Your task to perform on an android device: Is it going to rain tomorrow? Image 0: 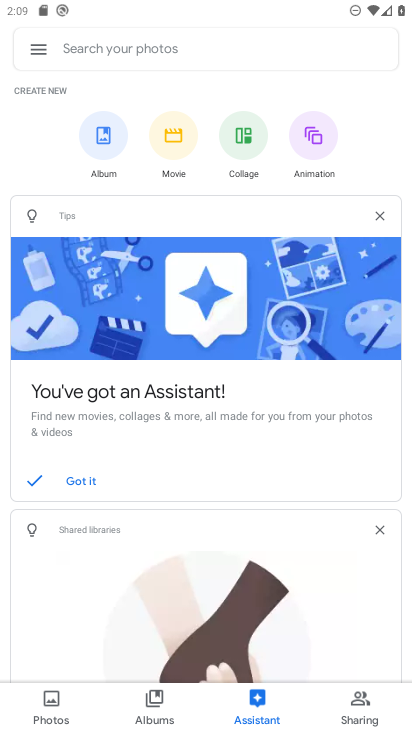
Step 0: press home button
Your task to perform on an android device: Is it going to rain tomorrow? Image 1: 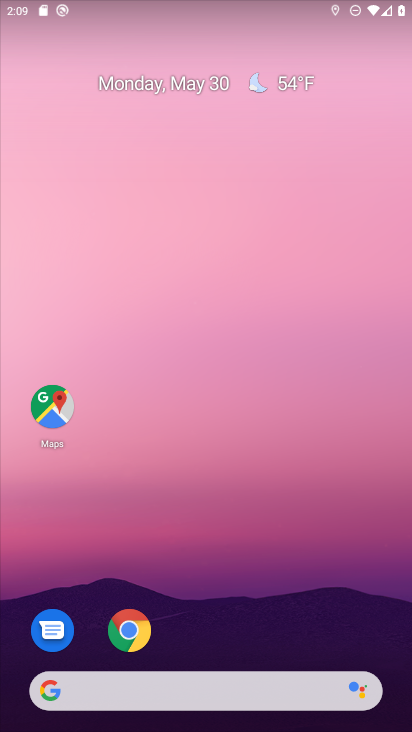
Step 1: click (299, 80)
Your task to perform on an android device: Is it going to rain tomorrow? Image 2: 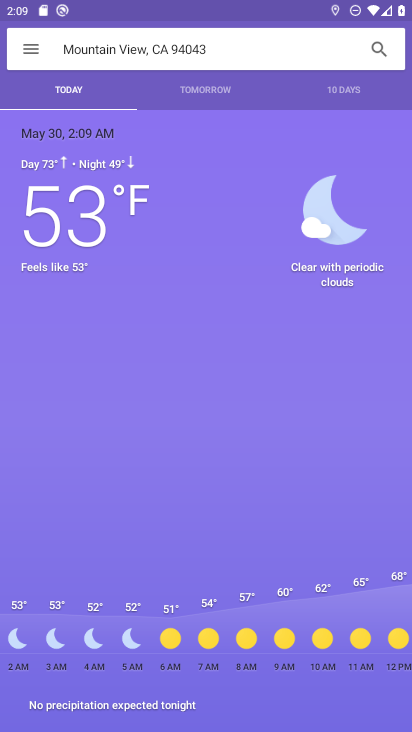
Step 2: click (208, 87)
Your task to perform on an android device: Is it going to rain tomorrow? Image 3: 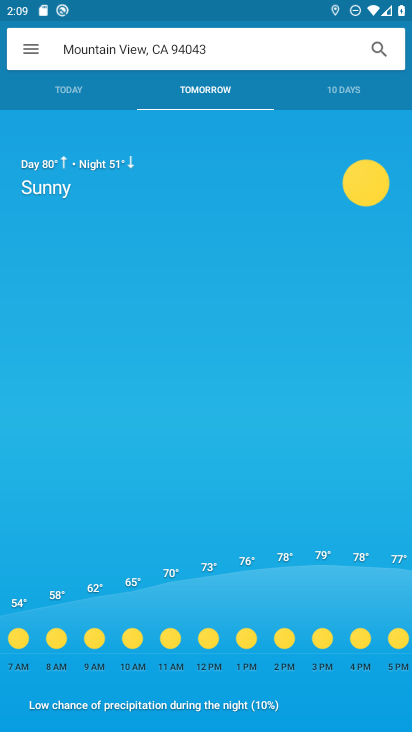
Step 3: task complete